Your task to perform on an android device: open app "Indeed Job Search" (install if not already installed) Image 0: 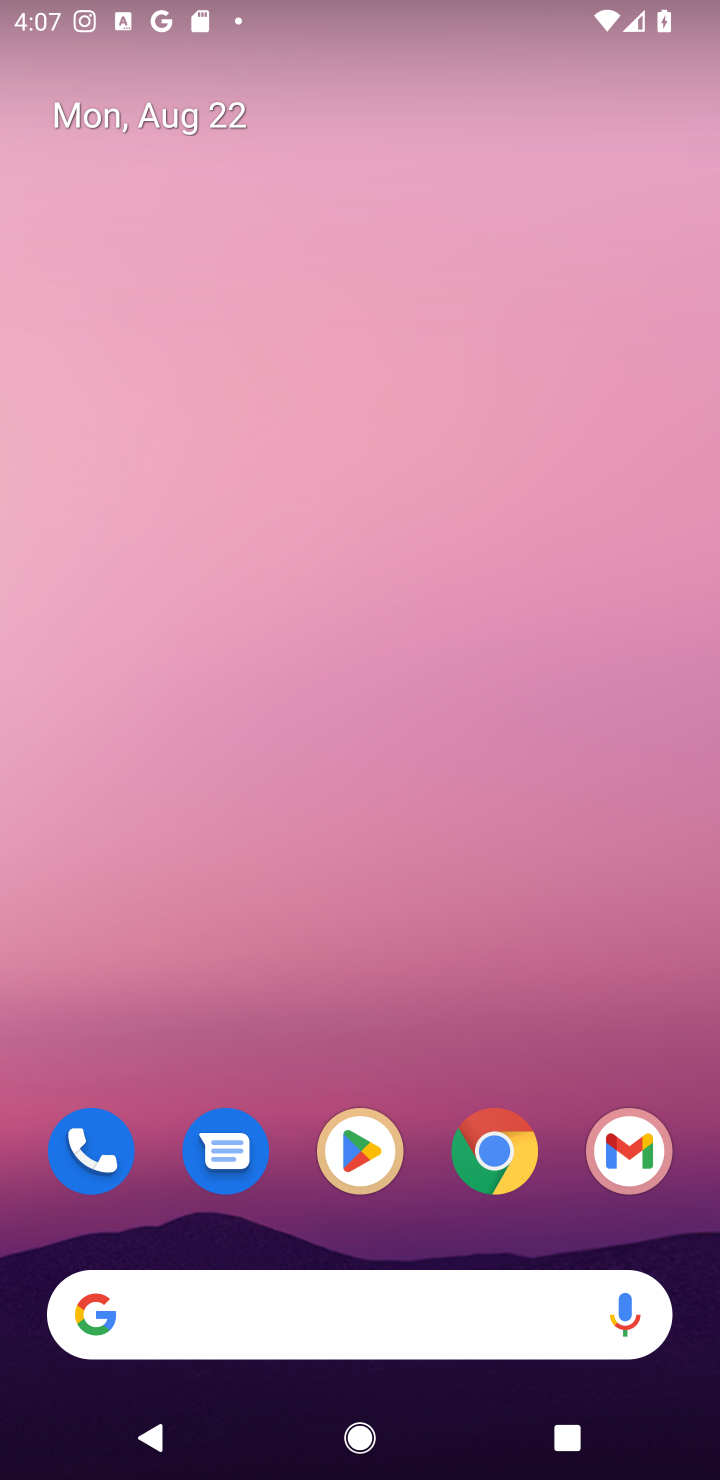
Step 0: click (360, 1159)
Your task to perform on an android device: open app "Indeed Job Search" (install if not already installed) Image 1: 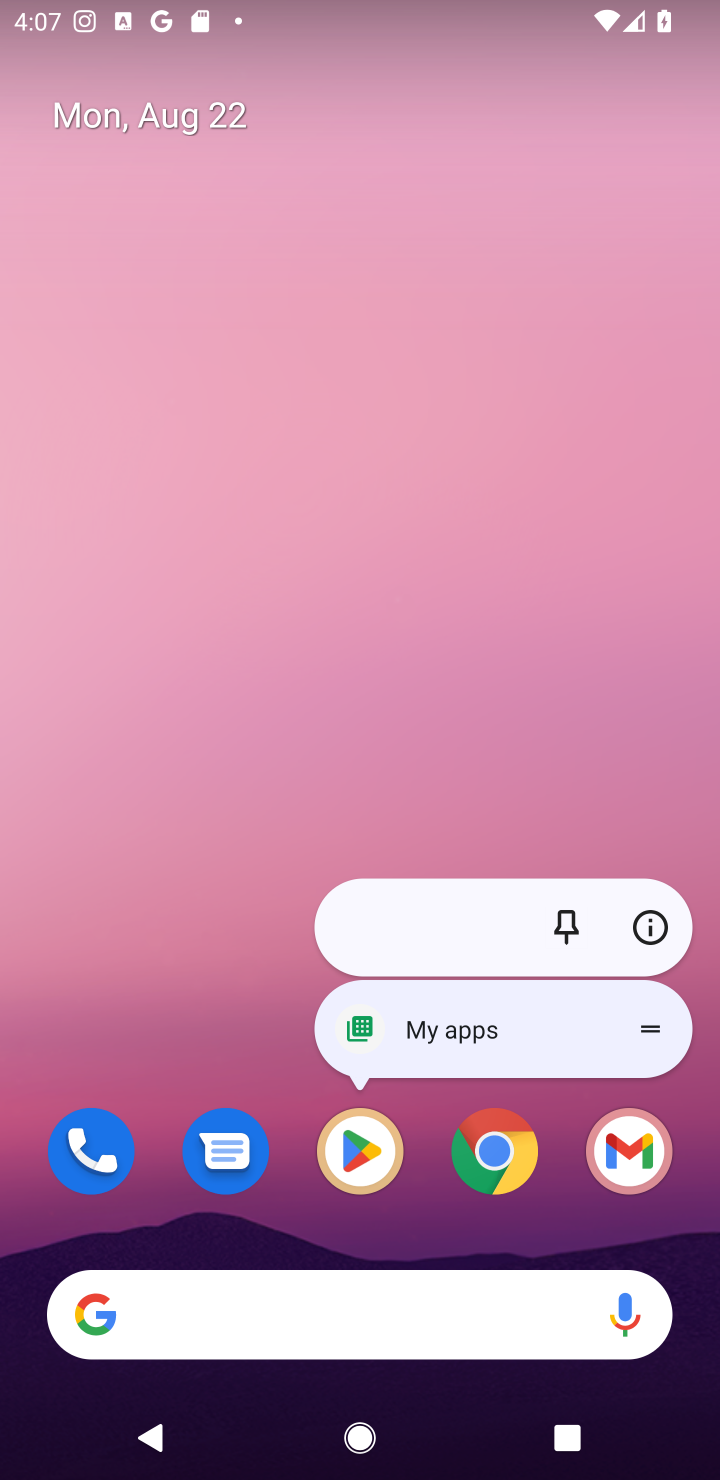
Step 1: click (360, 1163)
Your task to perform on an android device: open app "Indeed Job Search" (install if not already installed) Image 2: 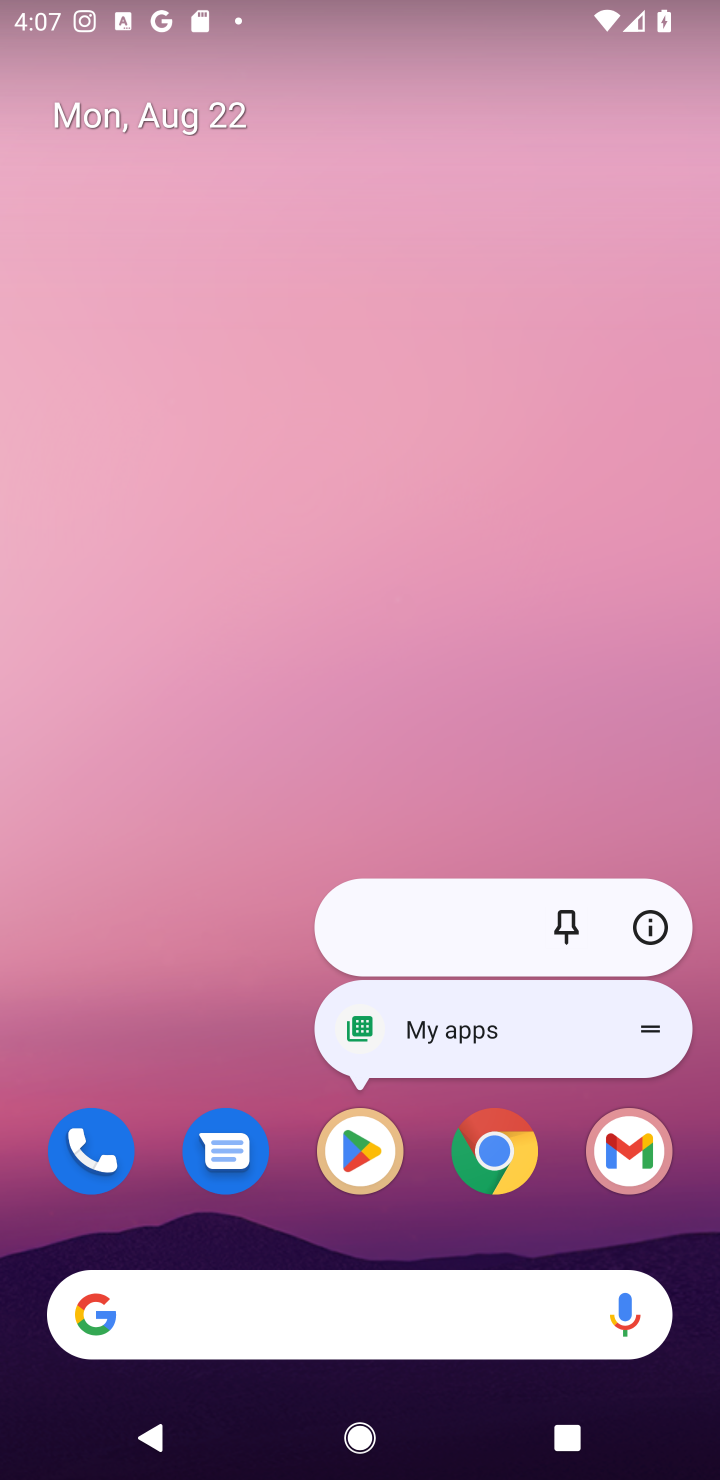
Step 2: click (362, 1139)
Your task to perform on an android device: open app "Indeed Job Search" (install if not already installed) Image 3: 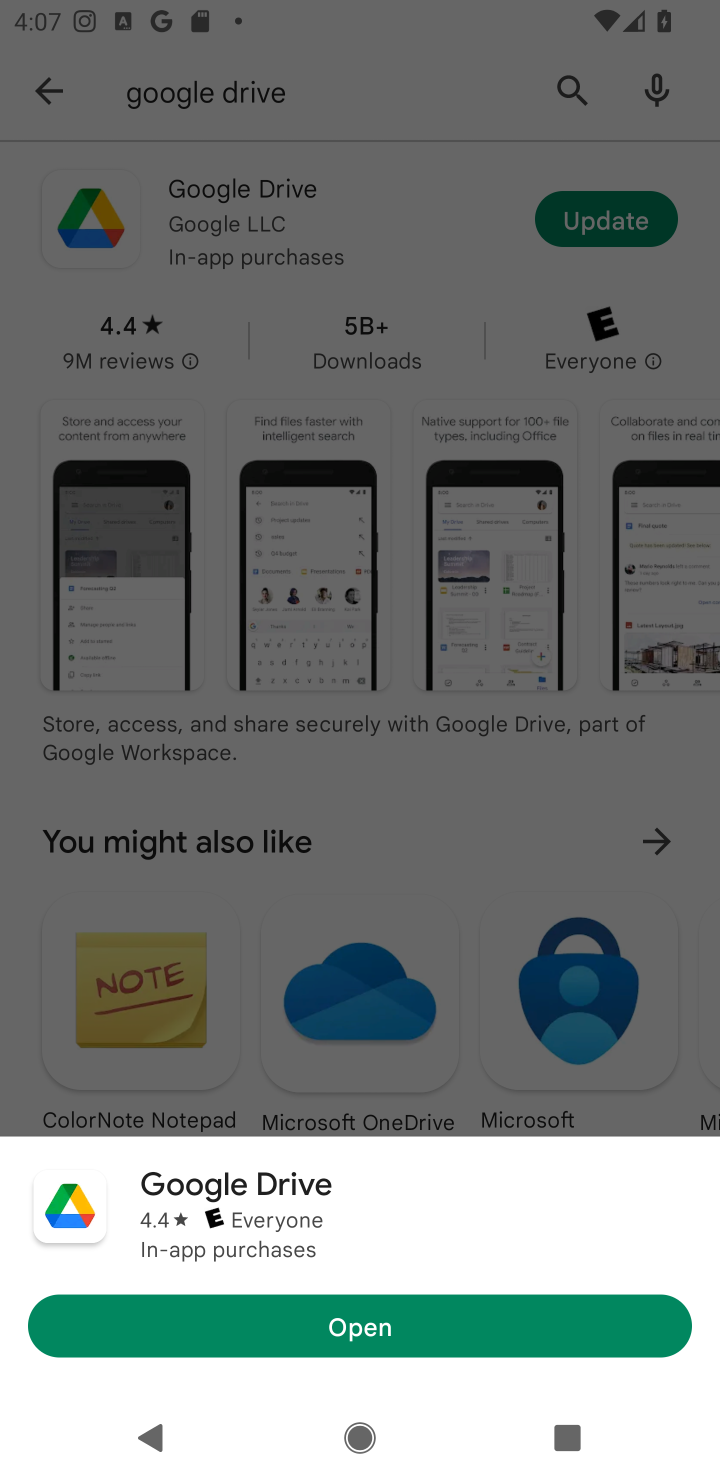
Step 3: click (560, 83)
Your task to perform on an android device: open app "Indeed Job Search" (install if not already installed) Image 4: 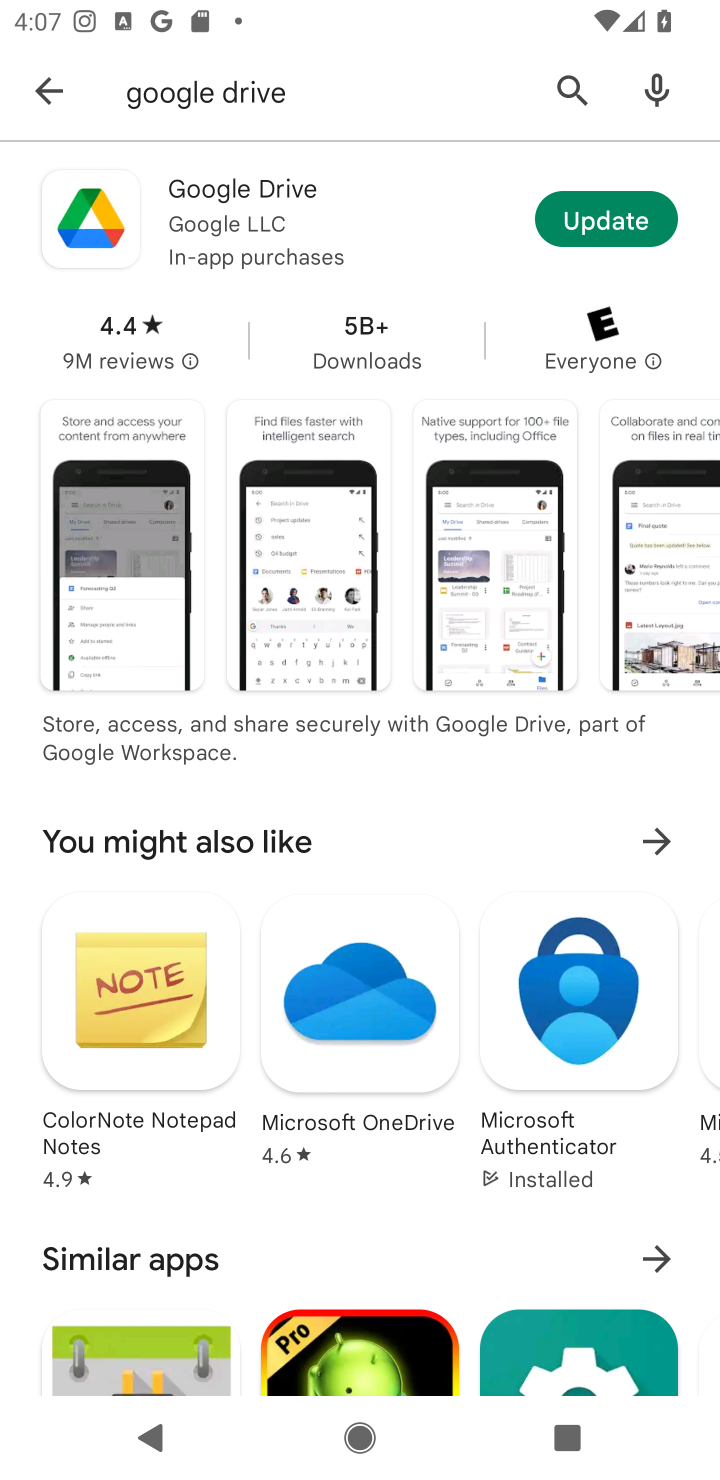
Step 4: click (570, 76)
Your task to perform on an android device: open app "Indeed Job Search" (install if not already installed) Image 5: 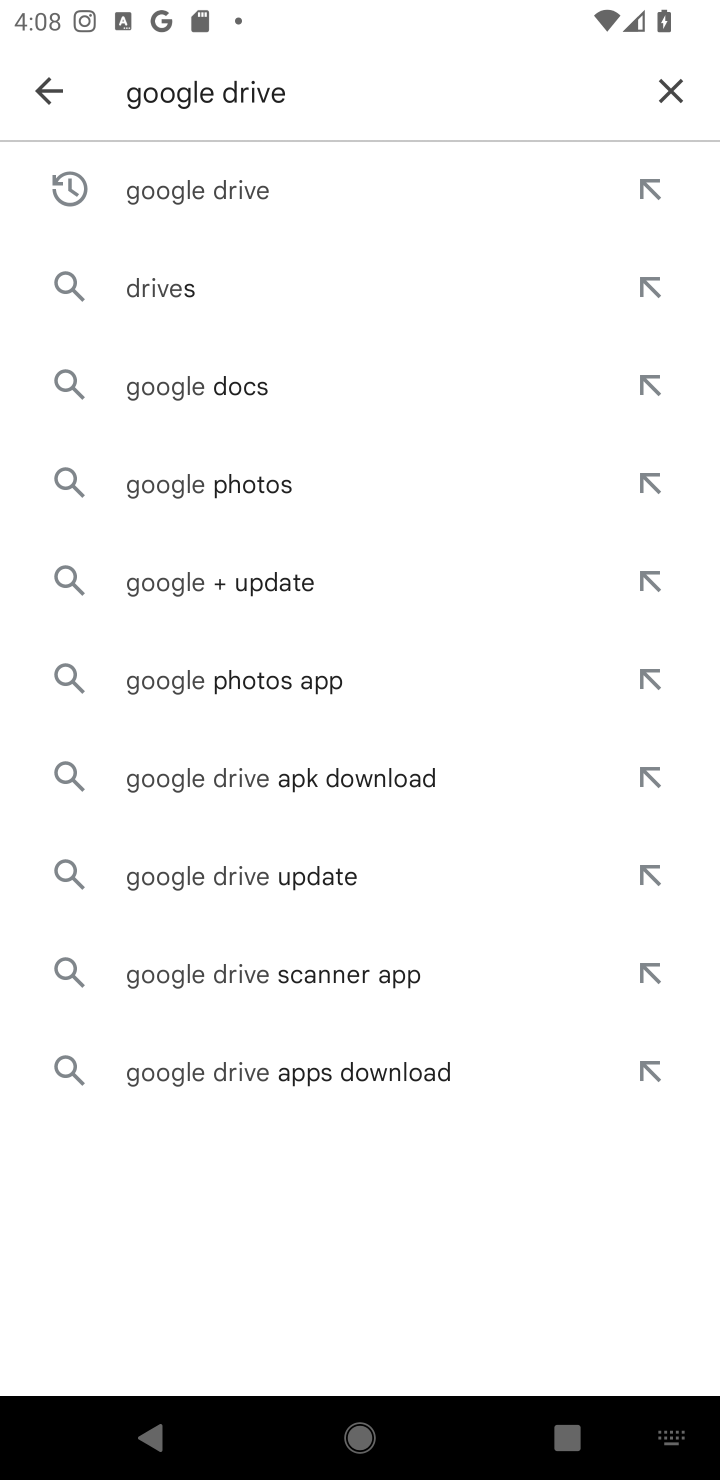
Step 5: click (665, 72)
Your task to perform on an android device: open app "Indeed Job Search" (install if not already installed) Image 6: 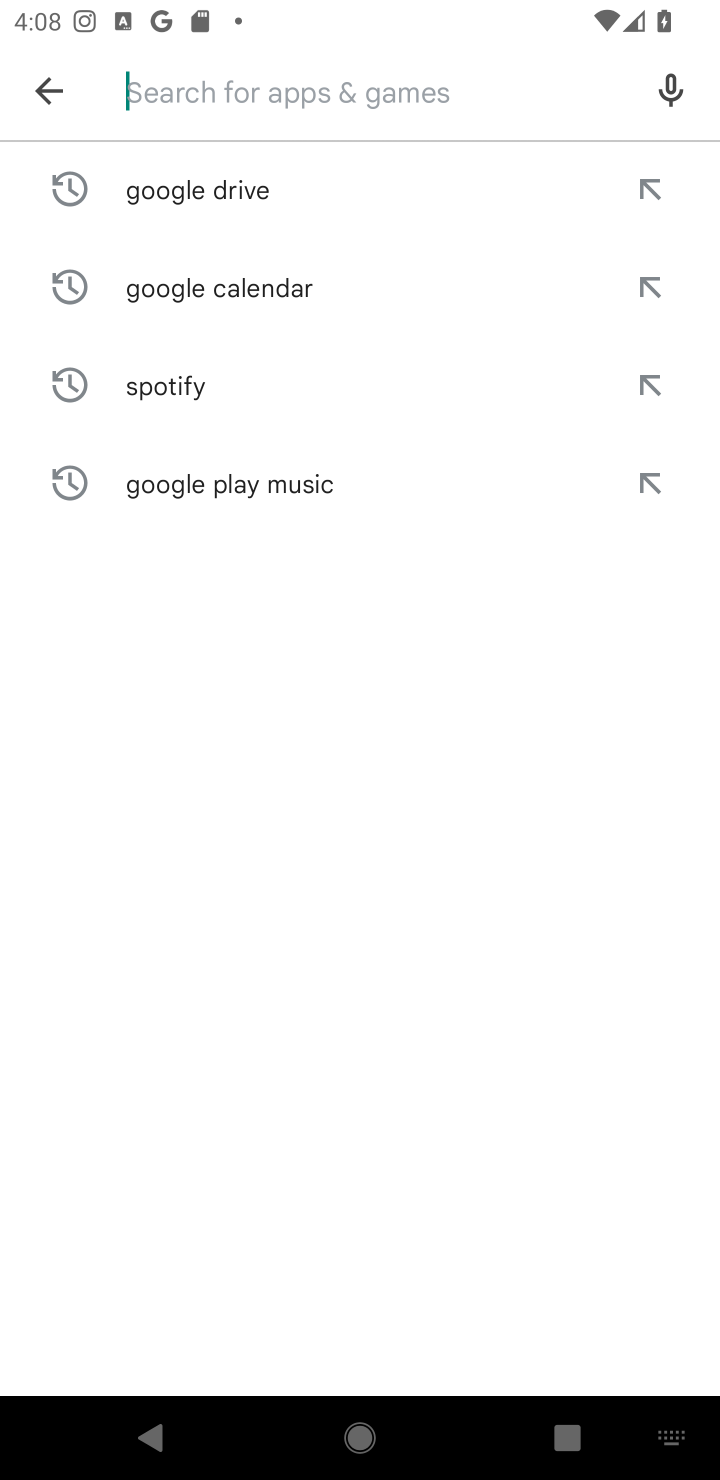
Step 6: type "Indeed Job Search"
Your task to perform on an android device: open app "Indeed Job Search" (install if not already installed) Image 7: 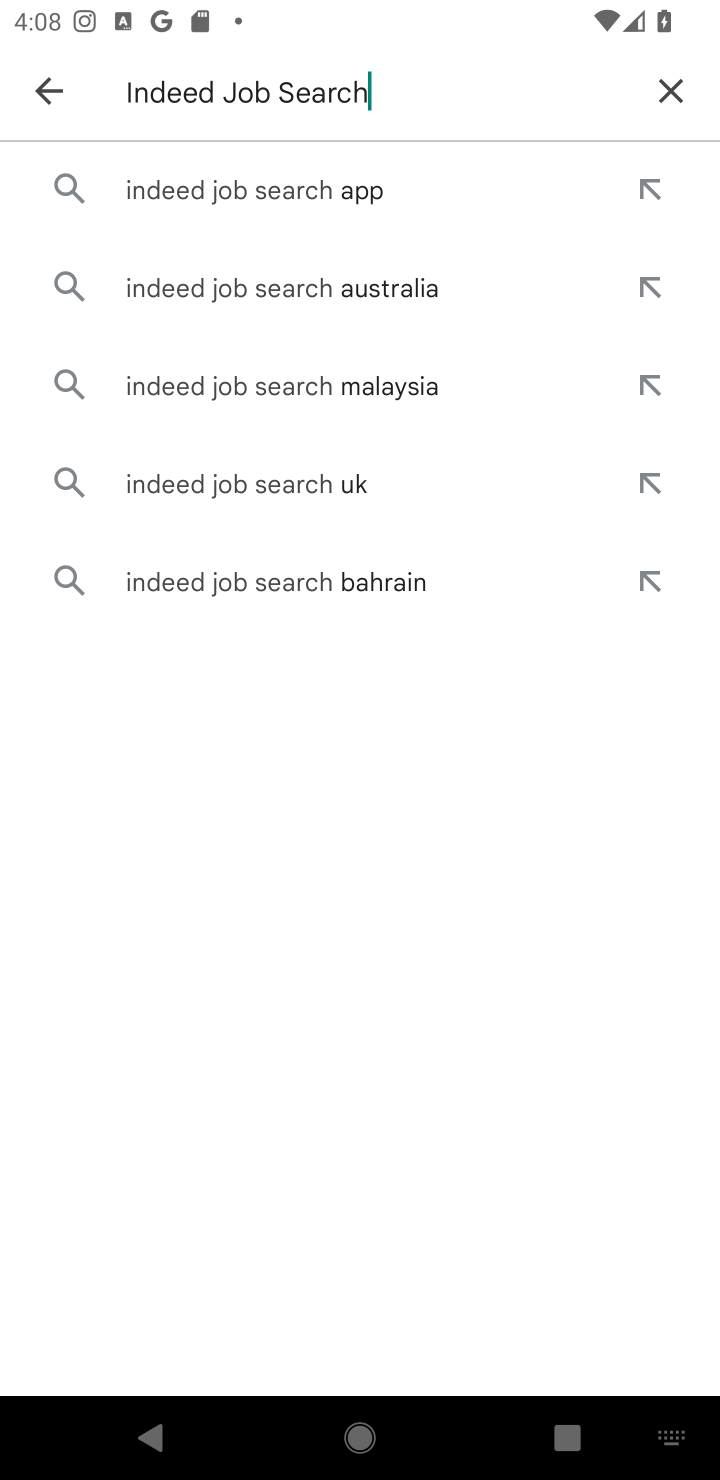
Step 7: click (339, 186)
Your task to perform on an android device: open app "Indeed Job Search" (install if not already installed) Image 8: 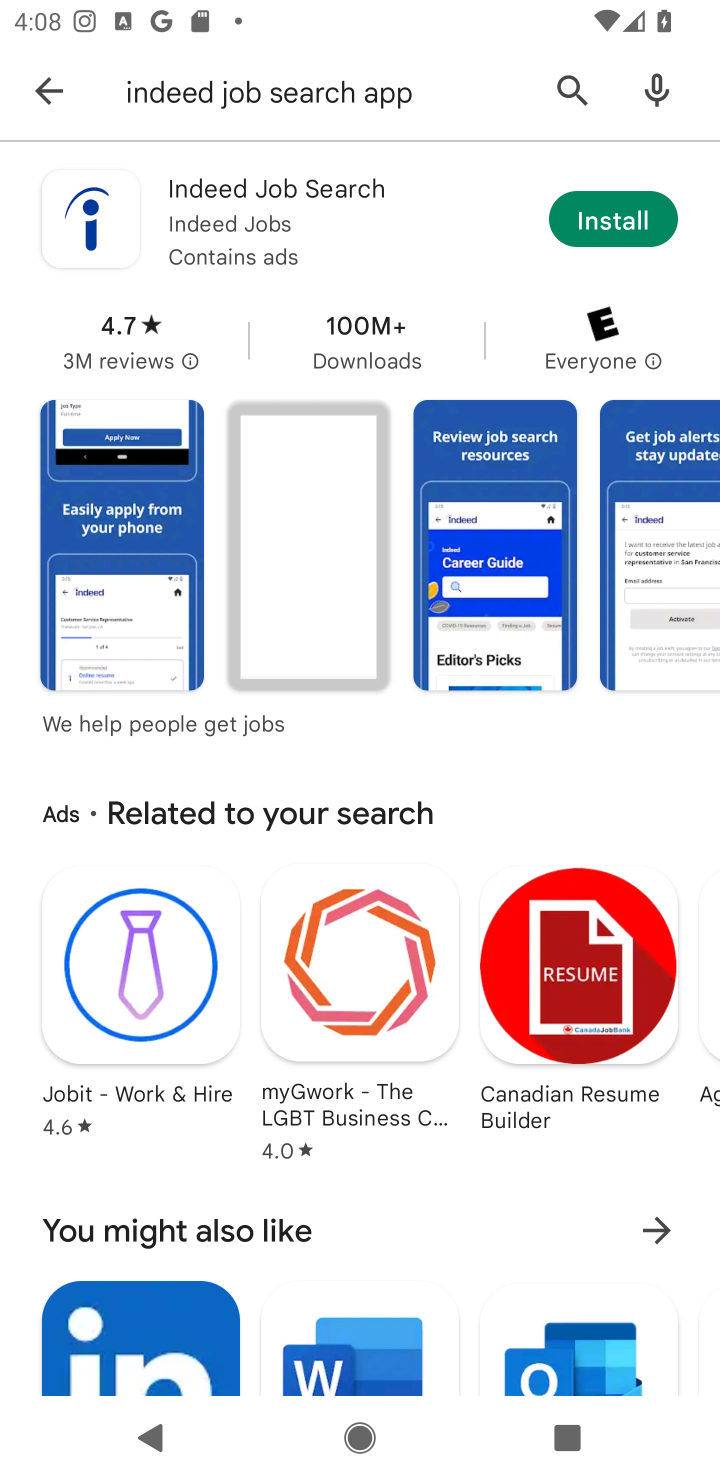
Step 8: click (619, 219)
Your task to perform on an android device: open app "Indeed Job Search" (install if not already installed) Image 9: 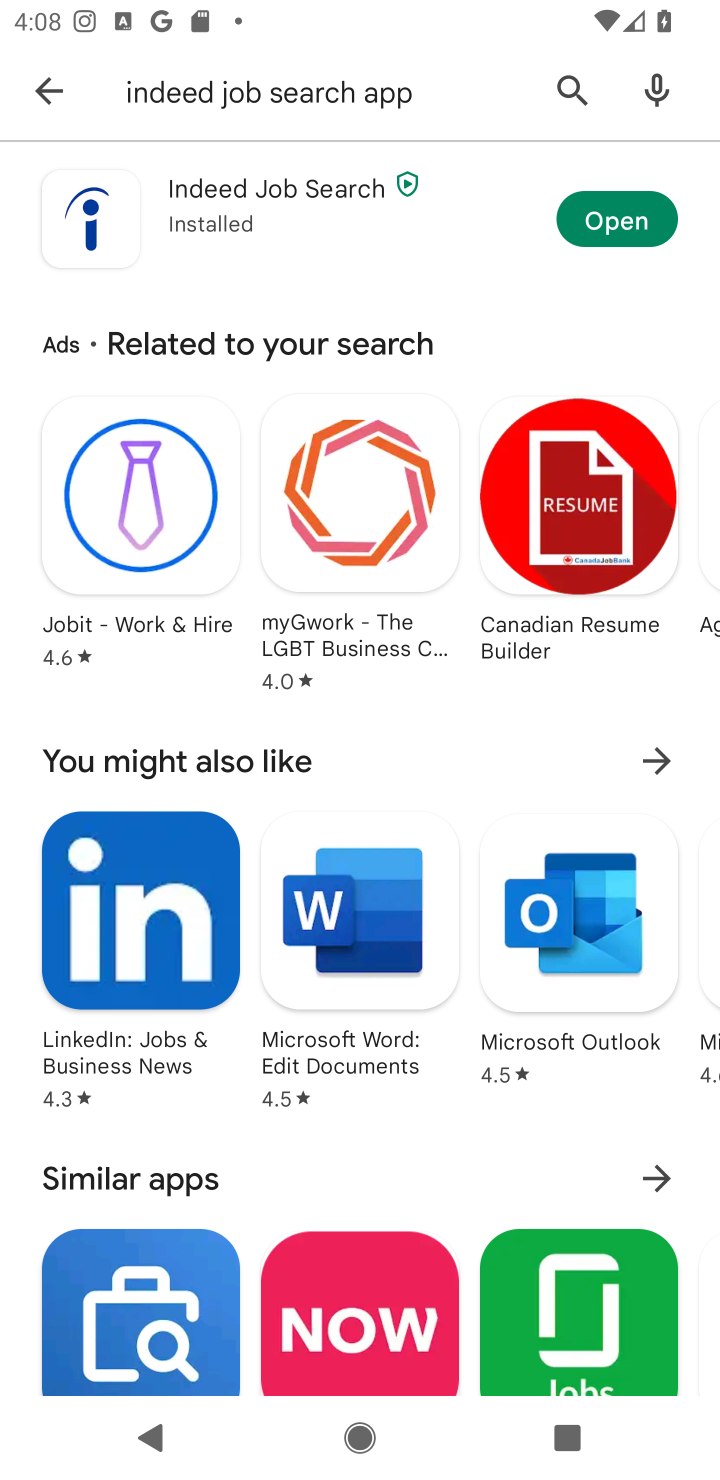
Step 9: click (627, 208)
Your task to perform on an android device: open app "Indeed Job Search" (install if not already installed) Image 10: 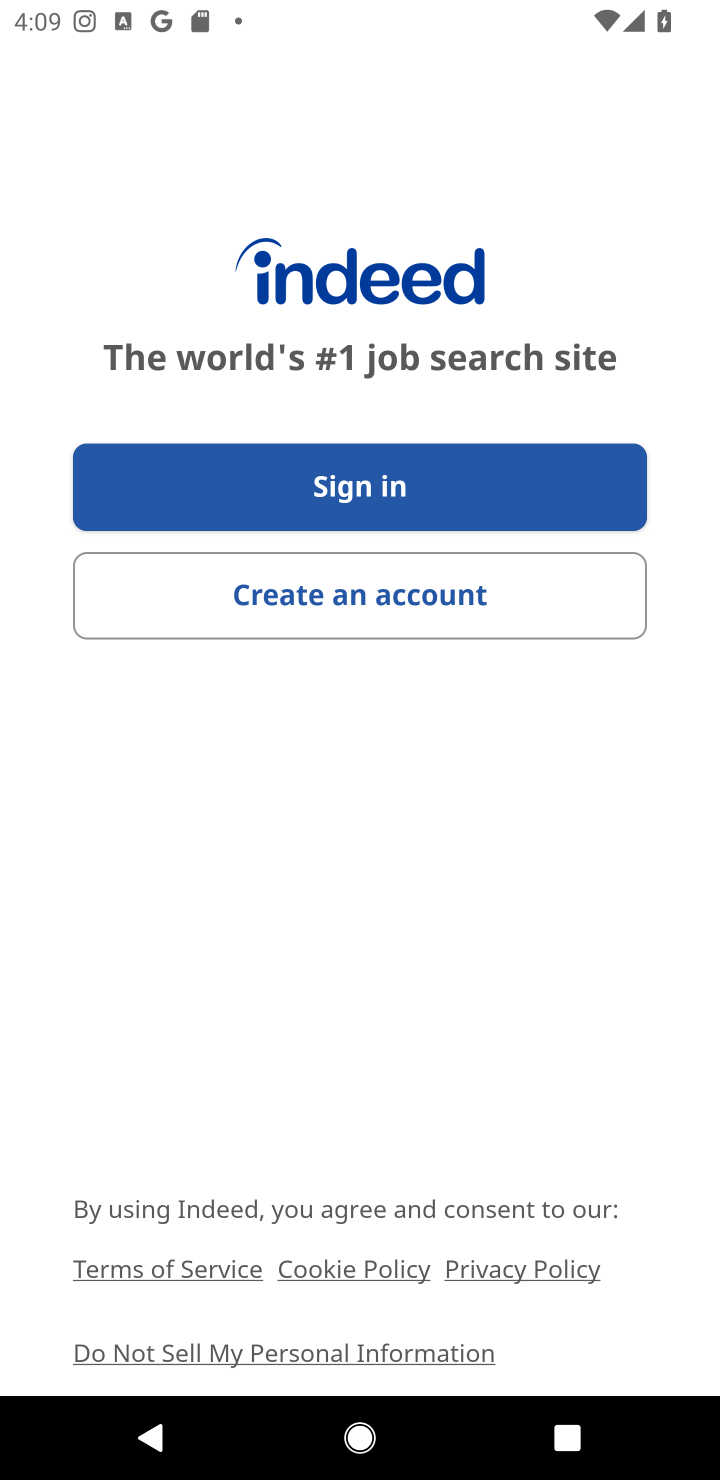
Step 10: task complete